Your task to perform on an android device: Search for sushi restaurants on Maps Image 0: 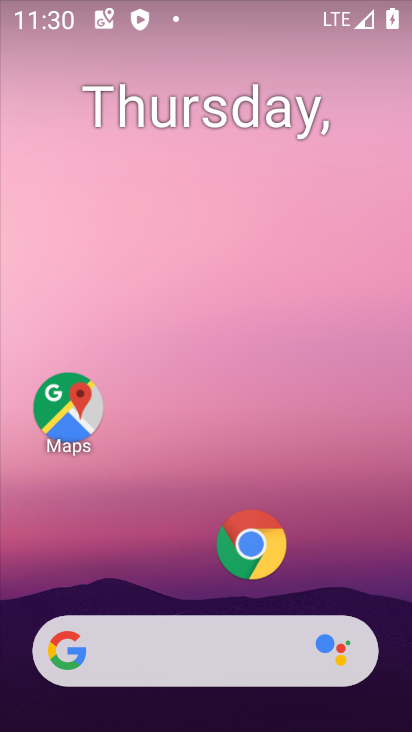
Step 0: click (55, 403)
Your task to perform on an android device: Search for sushi restaurants on Maps Image 1: 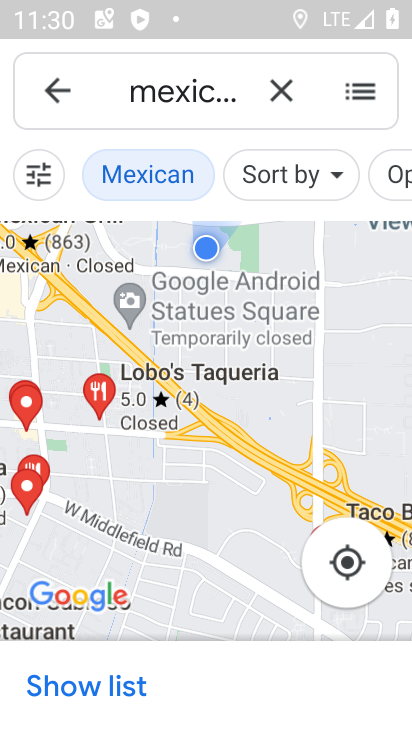
Step 1: click (283, 96)
Your task to perform on an android device: Search for sushi restaurants on Maps Image 2: 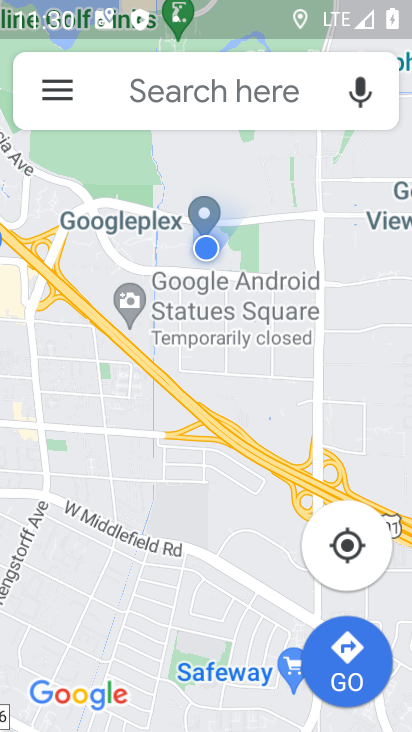
Step 2: click (171, 101)
Your task to perform on an android device: Search for sushi restaurants on Maps Image 3: 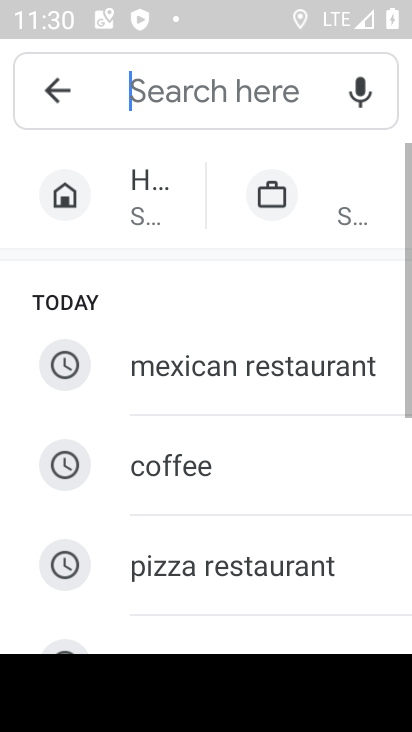
Step 3: drag from (217, 552) to (221, 237)
Your task to perform on an android device: Search for sushi restaurants on Maps Image 4: 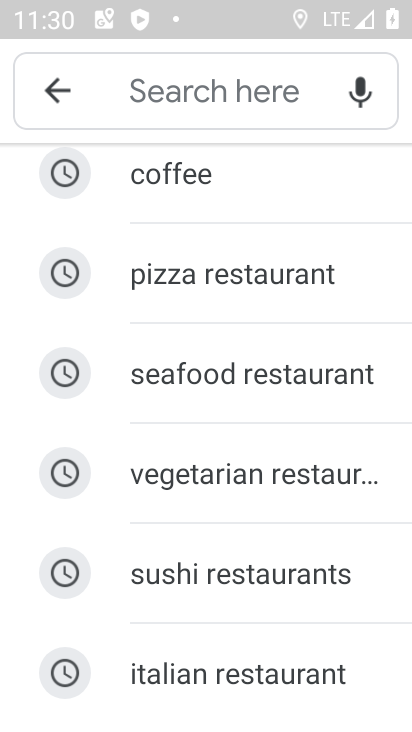
Step 4: click (211, 572)
Your task to perform on an android device: Search for sushi restaurants on Maps Image 5: 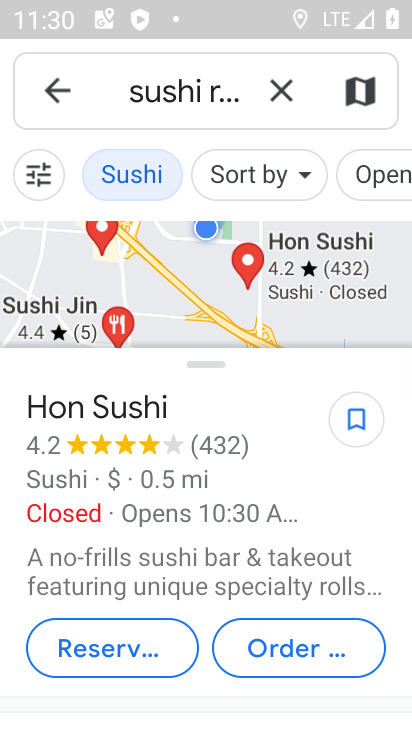
Step 5: task complete